Your task to perform on an android device: turn on sleep mode Image 0: 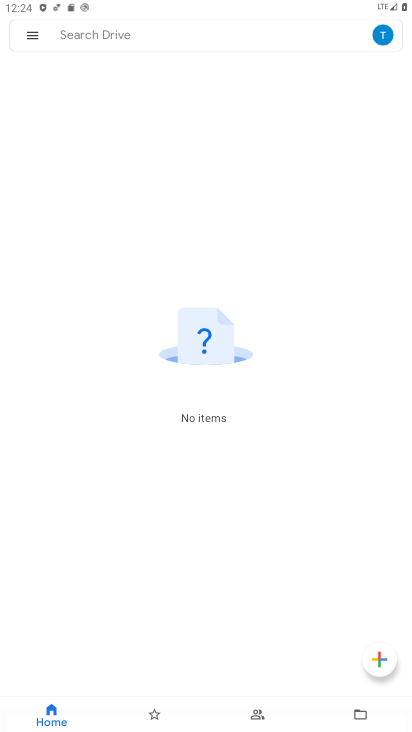
Step 0: press home button
Your task to perform on an android device: turn on sleep mode Image 1: 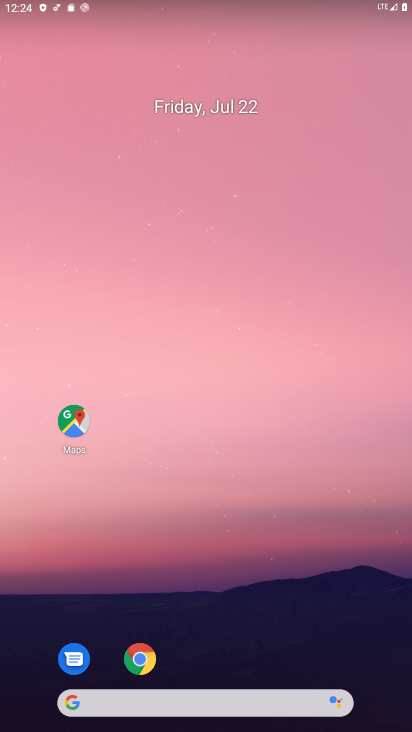
Step 1: drag from (205, 466) to (205, 257)
Your task to perform on an android device: turn on sleep mode Image 2: 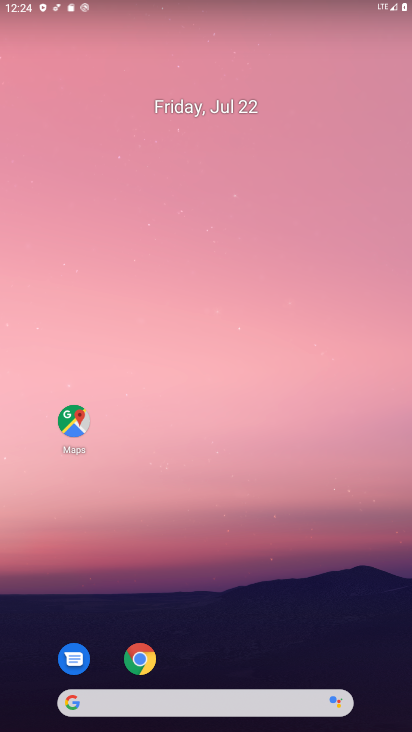
Step 2: drag from (232, 625) to (225, 291)
Your task to perform on an android device: turn on sleep mode Image 3: 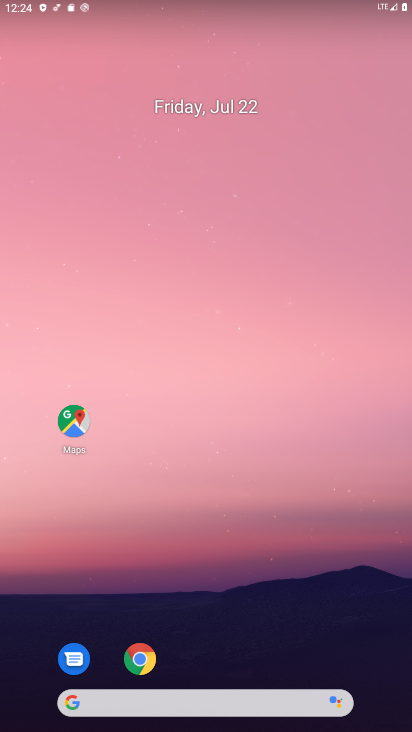
Step 3: drag from (254, 673) to (254, 70)
Your task to perform on an android device: turn on sleep mode Image 4: 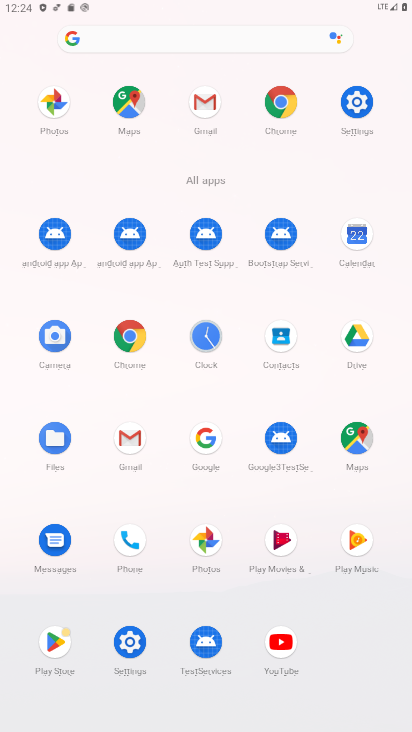
Step 4: click (366, 110)
Your task to perform on an android device: turn on sleep mode Image 5: 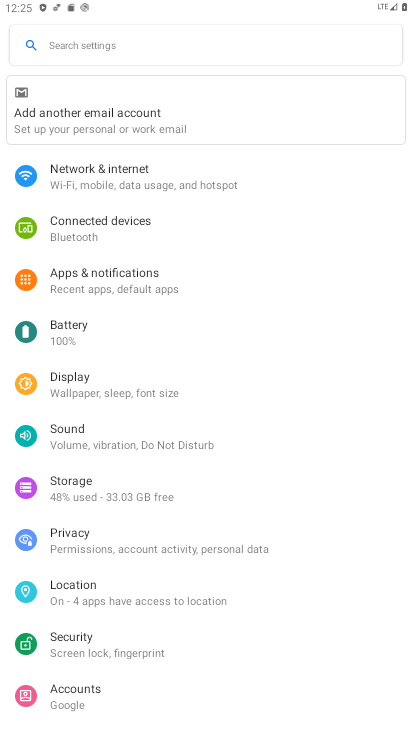
Step 5: click (179, 169)
Your task to perform on an android device: turn on sleep mode Image 6: 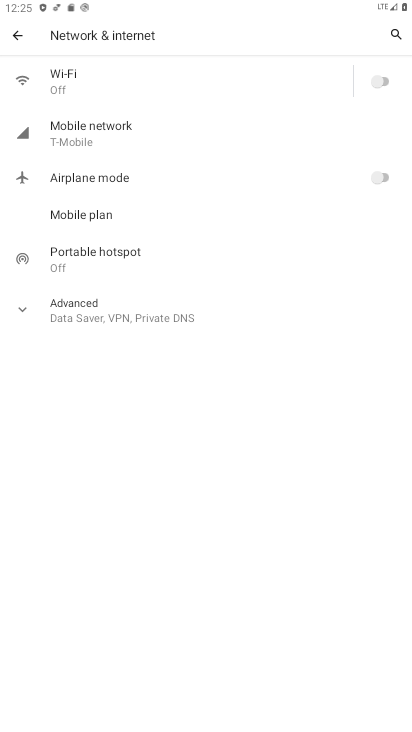
Step 6: click (104, 140)
Your task to perform on an android device: turn on sleep mode Image 7: 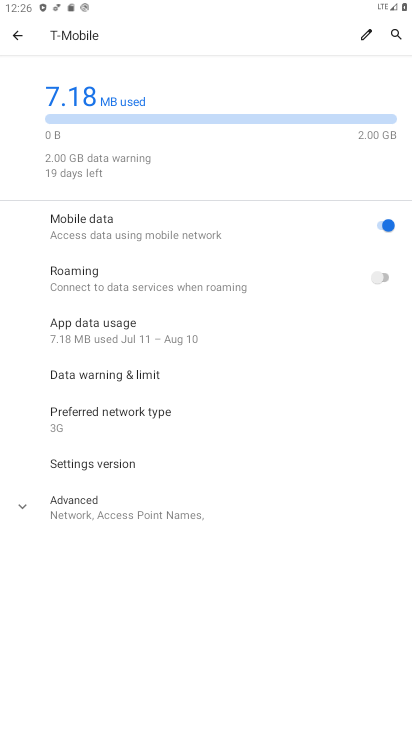
Step 7: click (2, 40)
Your task to perform on an android device: turn on sleep mode Image 8: 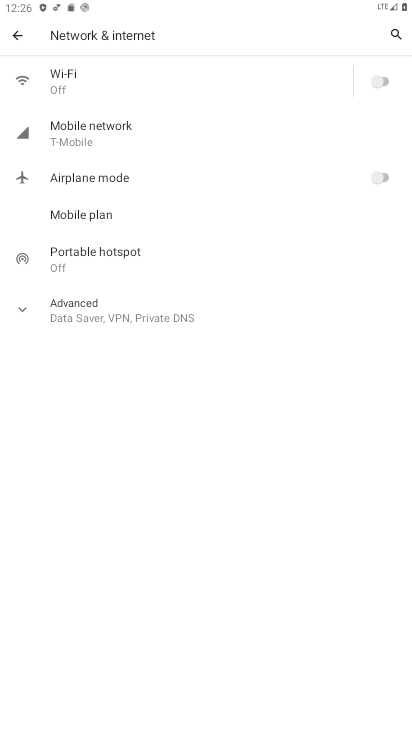
Step 8: click (15, 39)
Your task to perform on an android device: turn on sleep mode Image 9: 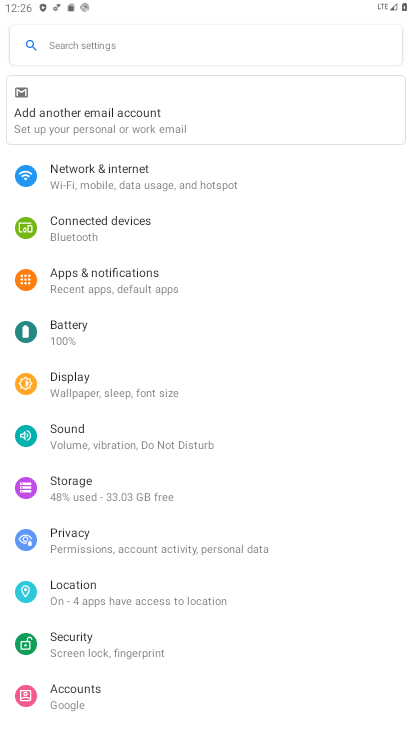
Step 9: click (120, 392)
Your task to perform on an android device: turn on sleep mode Image 10: 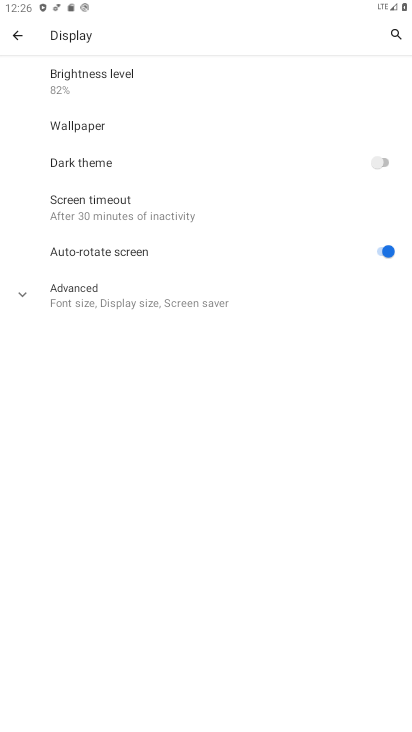
Step 10: click (184, 220)
Your task to perform on an android device: turn on sleep mode Image 11: 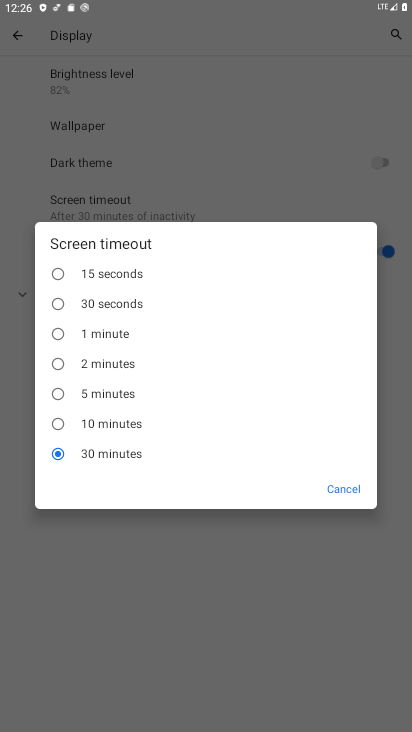
Step 11: click (132, 326)
Your task to perform on an android device: turn on sleep mode Image 12: 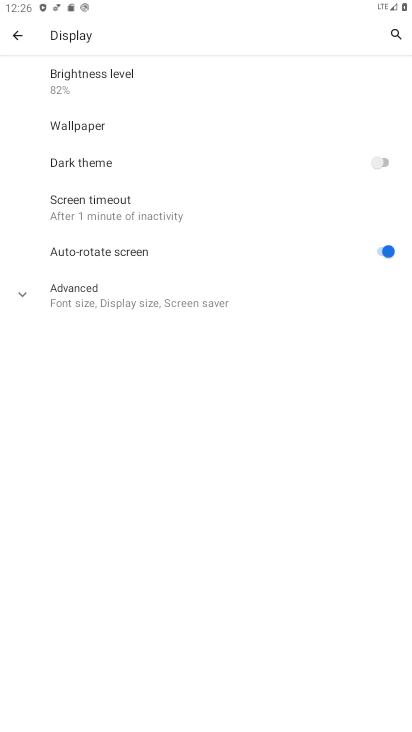
Step 12: task complete